Your task to perform on an android device: Open accessibility settings Image 0: 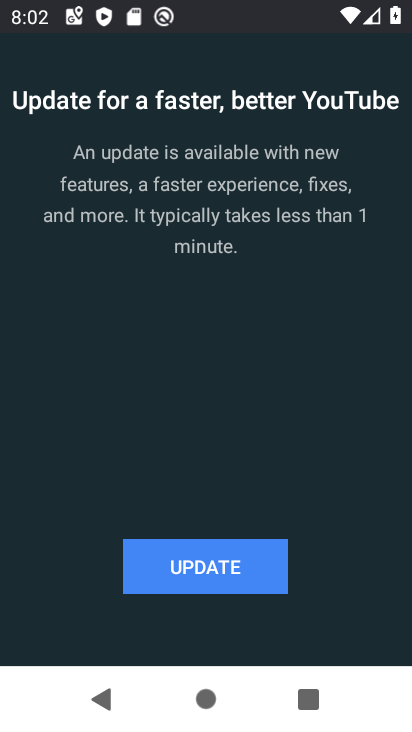
Step 0: press home button
Your task to perform on an android device: Open accessibility settings Image 1: 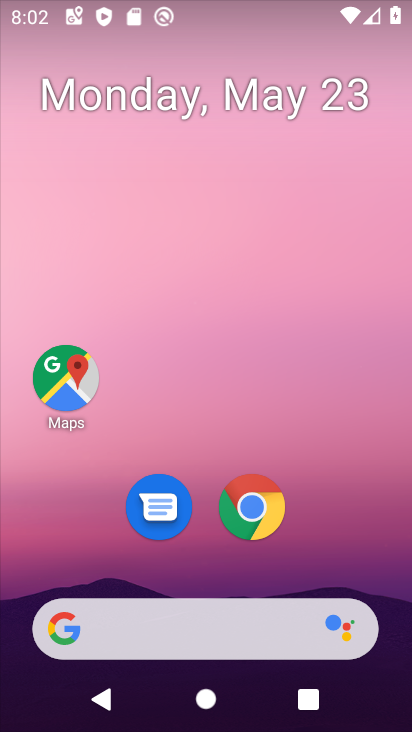
Step 1: drag from (338, 530) to (303, 126)
Your task to perform on an android device: Open accessibility settings Image 2: 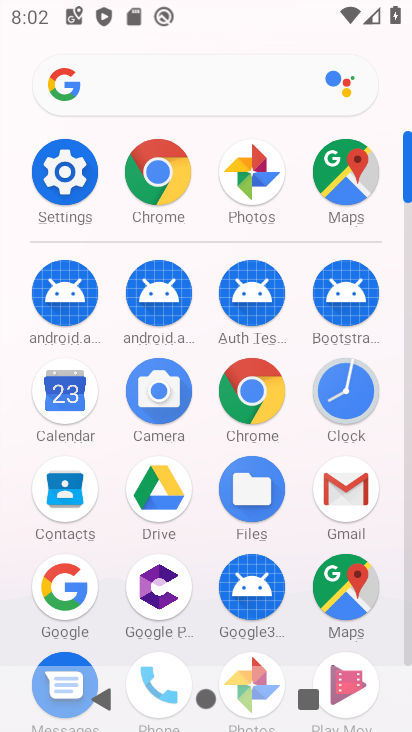
Step 2: click (37, 167)
Your task to perform on an android device: Open accessibility settings Image 3: 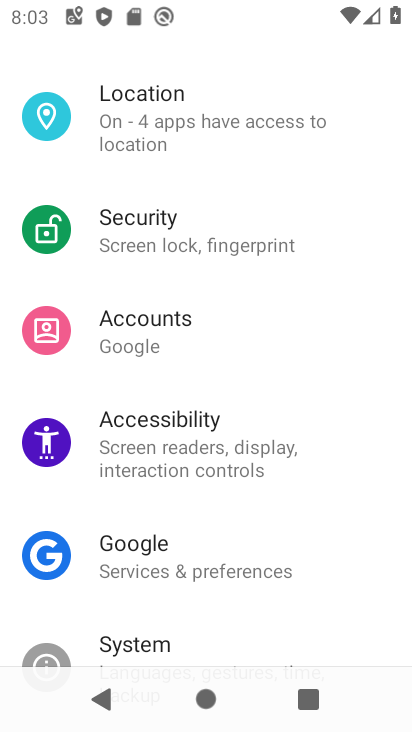
Step 3: click (165, 449)
Your task to perform on an android device: Open accessibility settings Image 4: 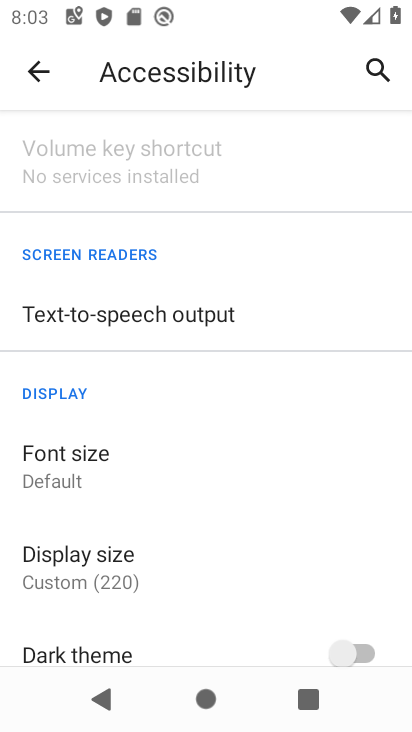
Step 4: task complete